Your task to perform on an android device: Show me the alarms in the clock app Image 0: 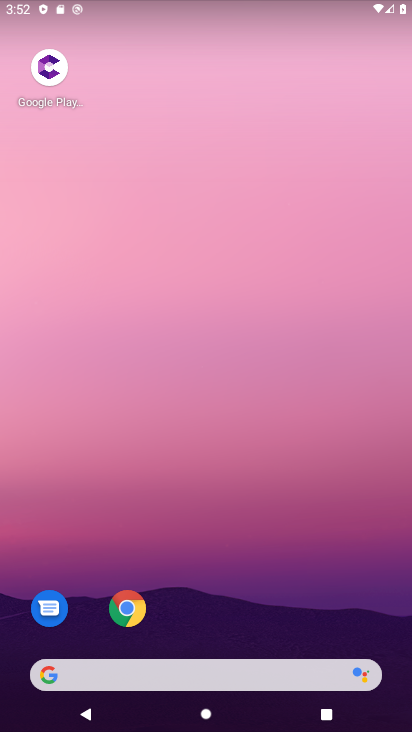
Step 0: drag from (306, 551) to (297, 169)
Your task to perform on an android device: Show me the alarms in the clock app Image 1: 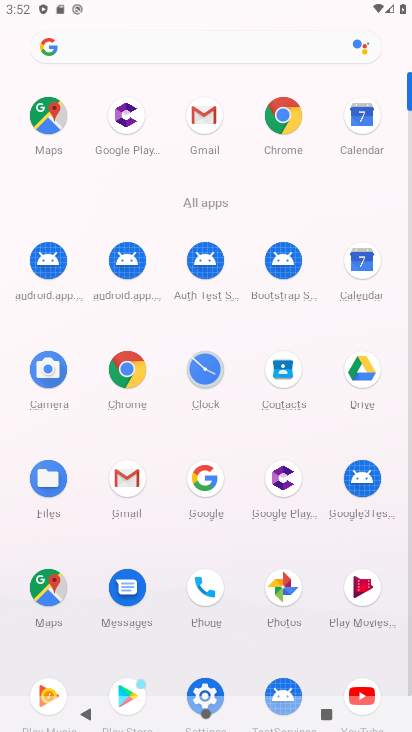
Step 1: click (209, 376)
Your task to perform on an android device: Show me the alarms in the clock app Image 2: 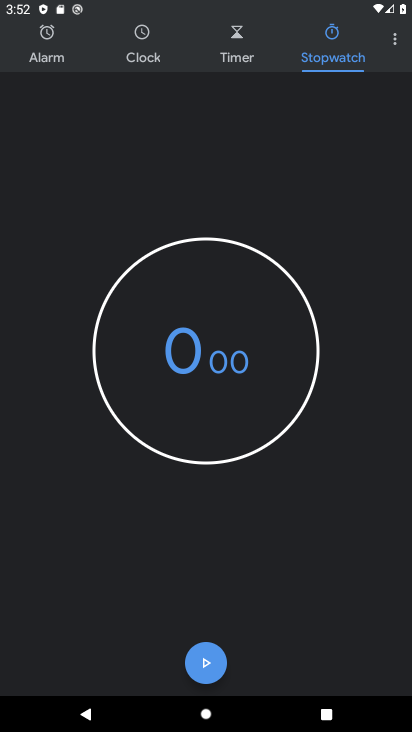
Step 2: click (53, 63)
Your task to perform on an android device: Show me the alarms in the clock app Image 3: 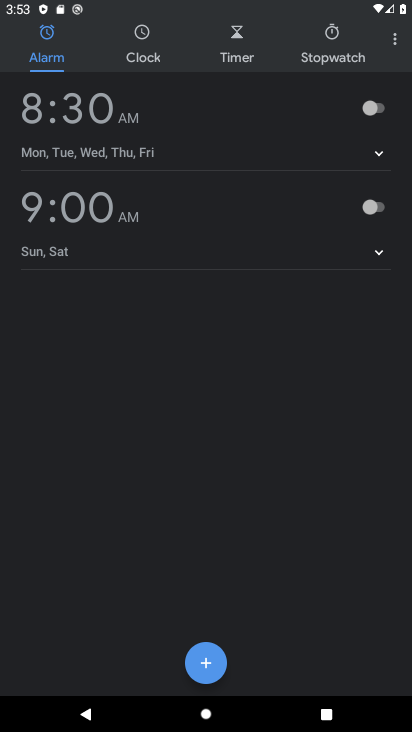
Step 3: task complete